Your task to perform on an android device: allow notifications from all sites in the chrome app Image 0: 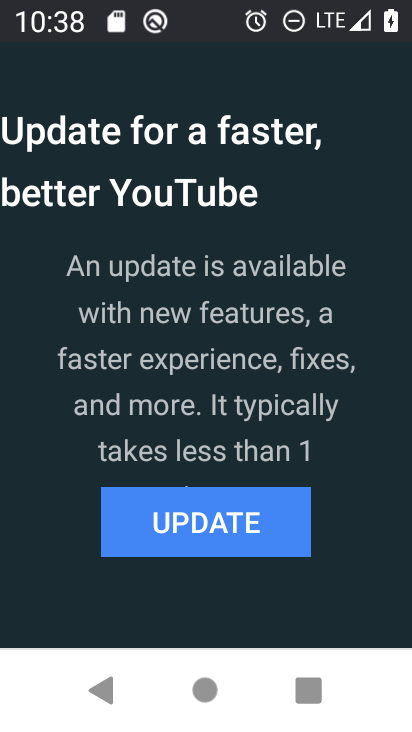
Step 0: press back button
Your task to perform on an android device: allow notifications from all sites in the chrome app Image 1: 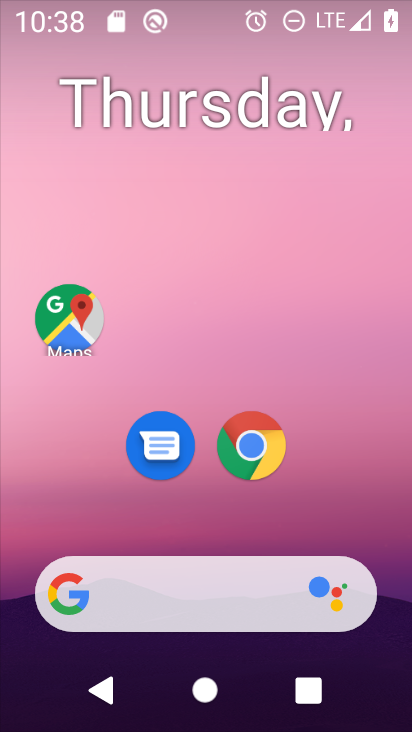
Step 1: drag from (401, 627) to (323, 42)
Your task to perform on an android device: allow notifications from all sites in the chrome app Image 2: 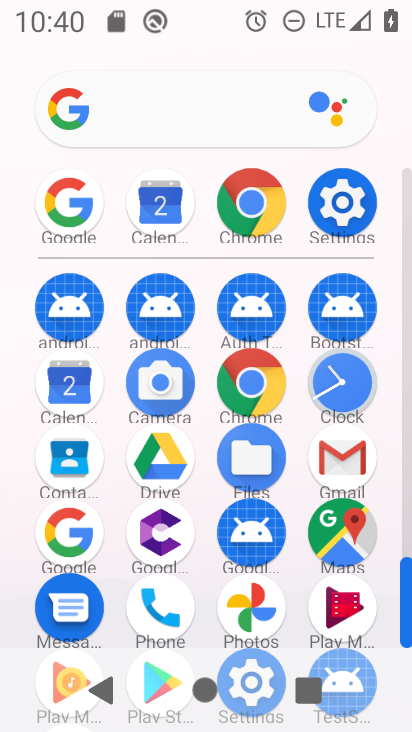
Step 2: click (258, 384)
Your task to perform on an android device: allow notifications from all sites in the chrome app Image 3: 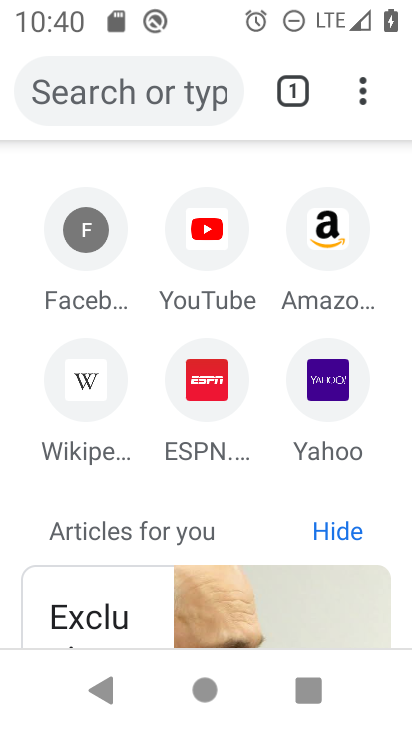
Step 3: click (364, 90)
Your task to perform on an android device: allow notifications from all sites in the chrome app Image 4: 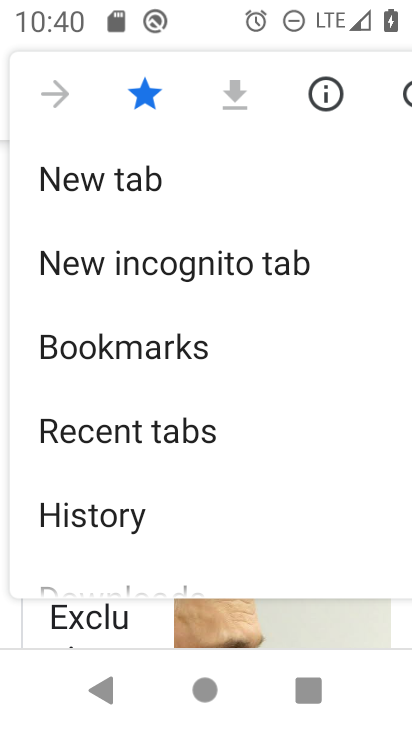
Step 4: click (193, 573)
Your task to perform on an android device: allow notifications from all sites in the chrome app Image 5: 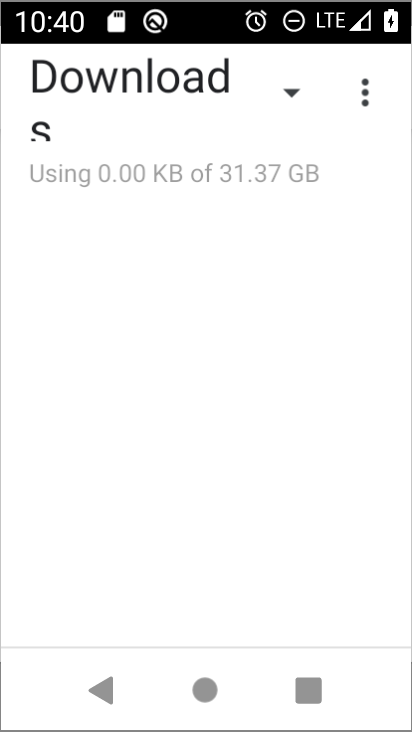
Step 5: click (240, 115)
Your task to perform on an android device: allow notifications from all sites in the chrome app Image 6: 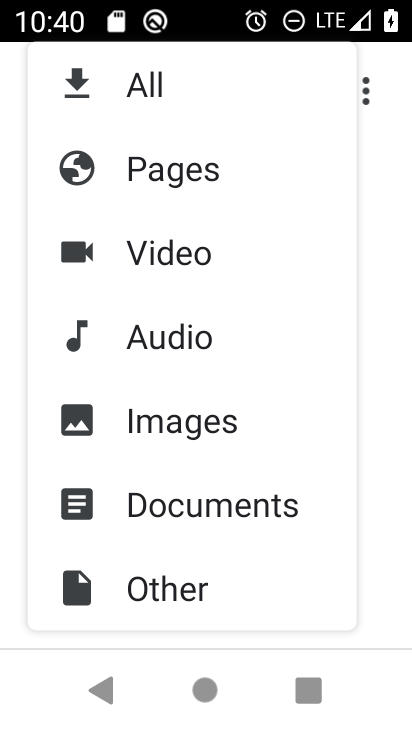
Step 6: press back button
Your task to perform on an android device: allow notifications from all sites in the chrome app Image 7: 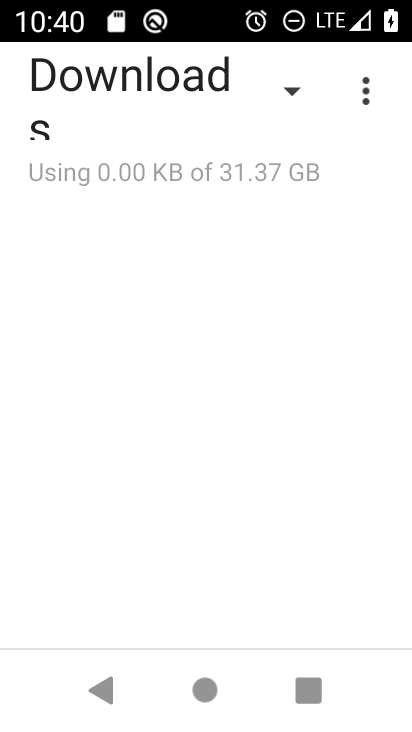
Step 7: press back button
Your task to perform on an android device: allow notifications from all sites in the chrome app Image 8: 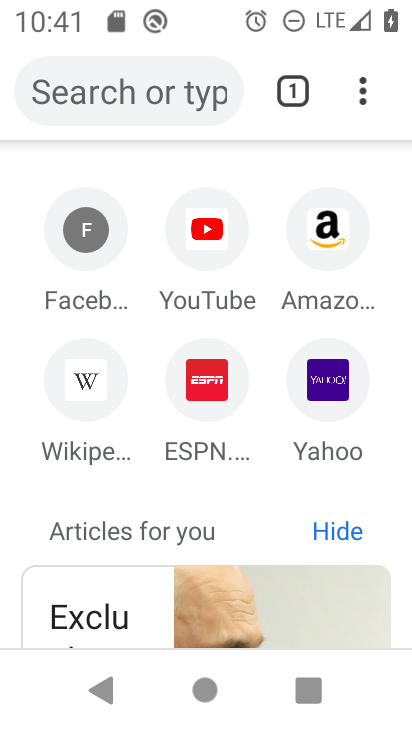
Step 8: click (365, 100)
Your task to perform on an android device: allow notifications from all sites in the chrome app Image 9: 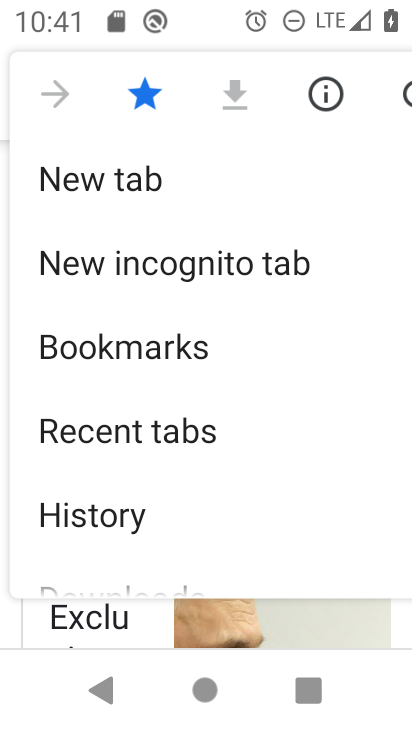
Step 9: drag from (262, 551) to (187, 70)
Your task to perform on an android device: allow notifications from all sites in the chrome app Image 10: 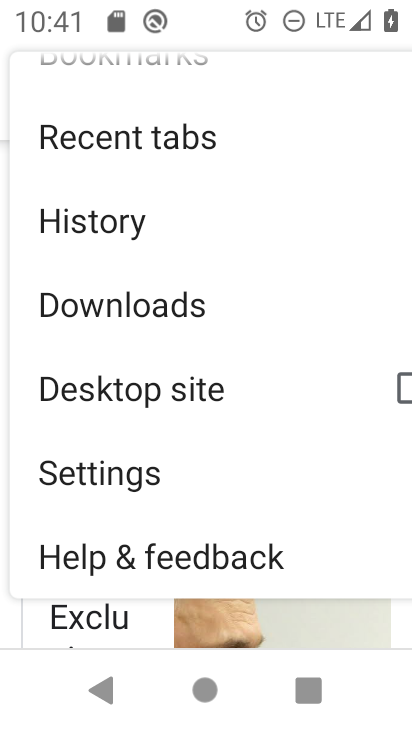
Step 10: click (81, 496)
Your task to perform on an android device: allow notifications from all sites in the chrome app Image 11: 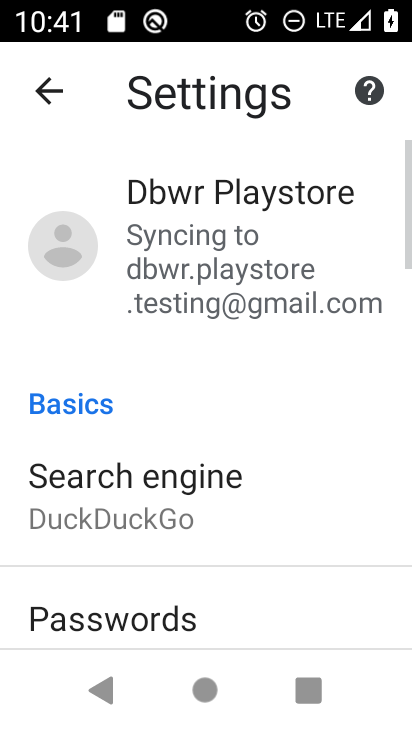
Step 11: drag from (217, 605) to (207, 127)
Your task to perform on an android device: allow notifications from all sites in the chrome app Image 12: 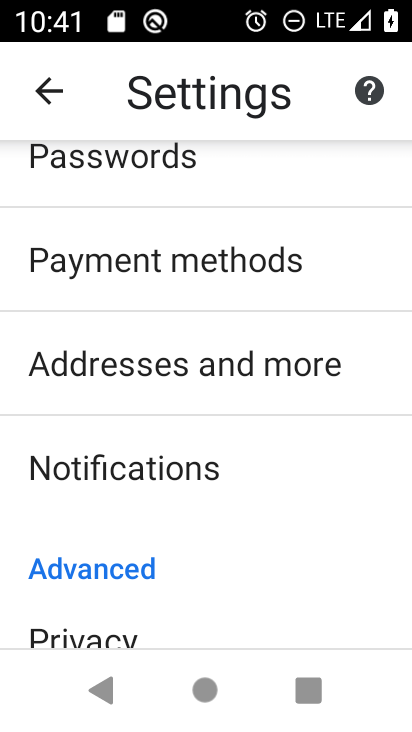
Step 12: click (179, 468)
Your task to perform on an android device: allow notifications from all sites in the chrome app Image 13: 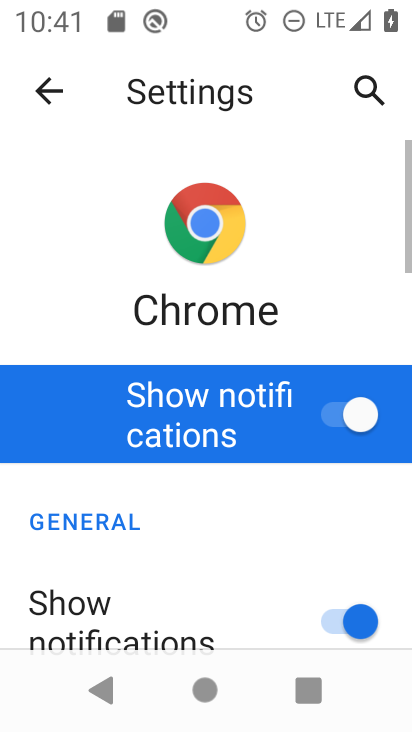
Step 13: task complete